Your task to perform on an android device: change the clock display to show seconds Image 0: 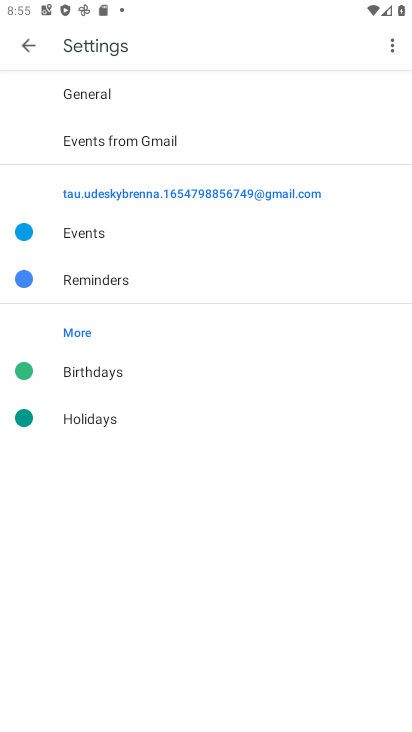
Step 0: press home button
Your task to perform on an android device: change the clock display to show seconds Image 1: 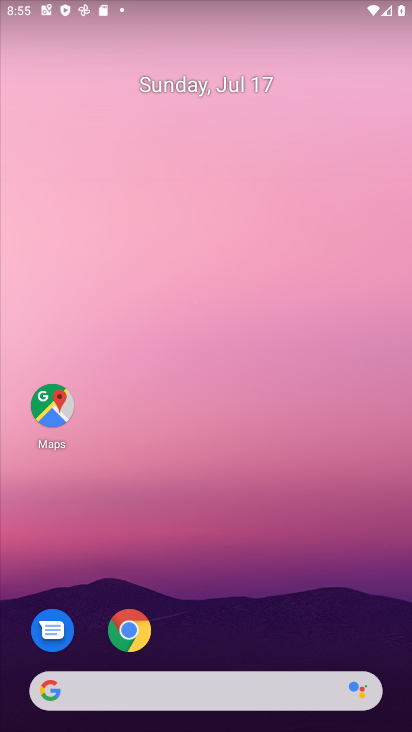
Step 1: drag from (154, 623) to (265, 51)
Your task to perform on an android device: change the clock display to show seconds Image 2: 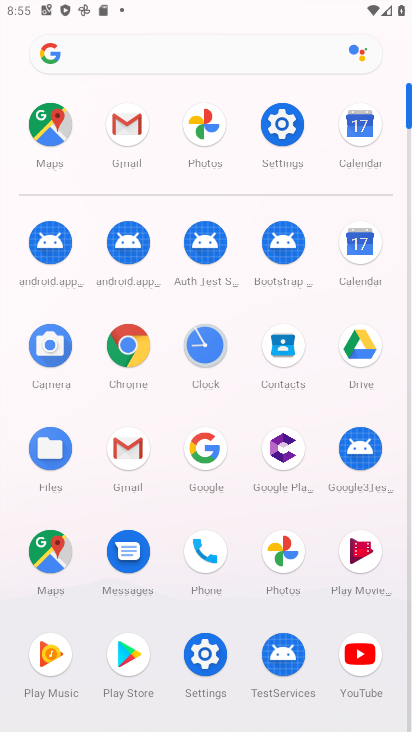
Step 2: click (215, 348)
Your task to perform on an android device: change the clock display to show seconds Image 3: 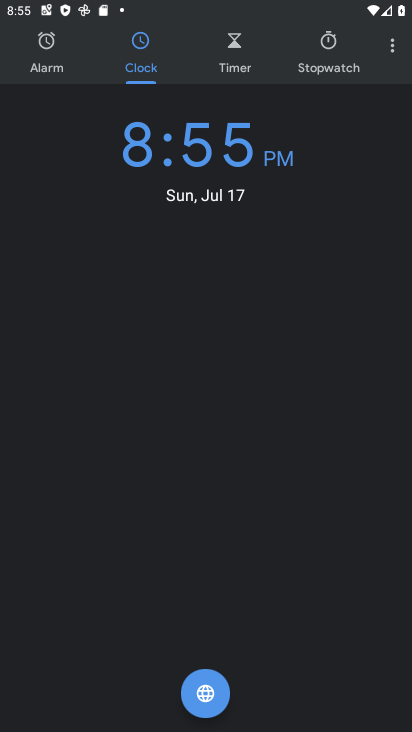
Step 3: click (391, 50)
Your task to perform on an android device: change the clock display to show seconds Image 4: 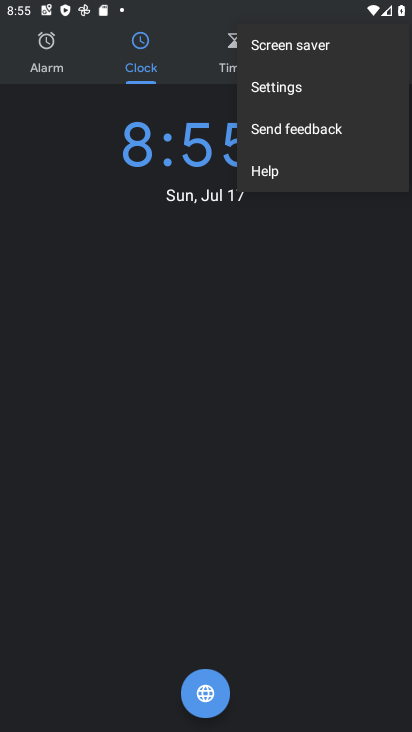
Step 4: click (295, 88)
Your task to perform on an android device: change the clock display to show seconds Image 5: 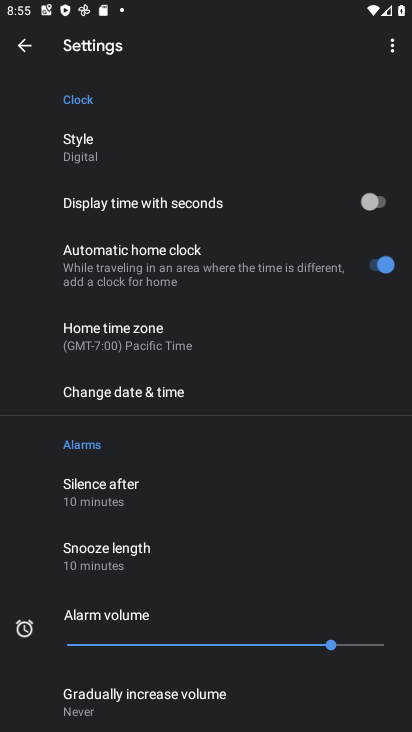
Step 5: click (372, 203)
Your task to perform on an android device: change the clock display to show seconds Image 6: 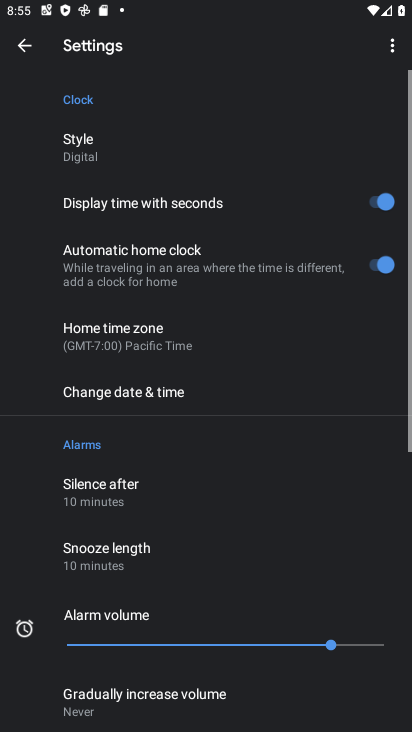
Step 6: task complete